Your task to perform on an android device: turn on wifi Image 0: 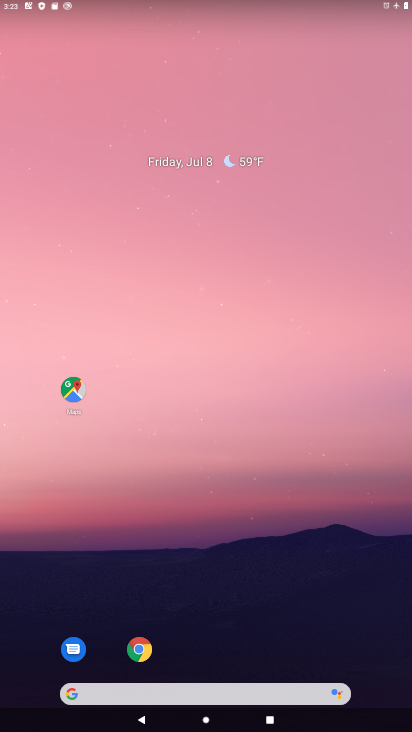
Step 0: drag from (309, 572) to (251, 89)
Your task to perform on an android device: turn on wifi Image 1: 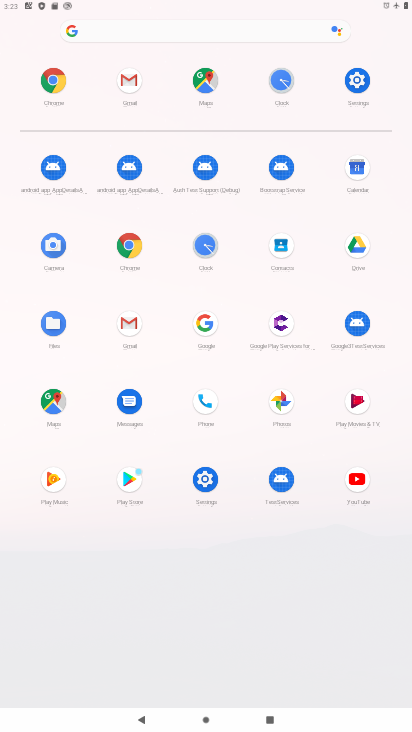
Step 1: click (356, 77)
Your task to perform on an android device: turn on wifi Image 2: 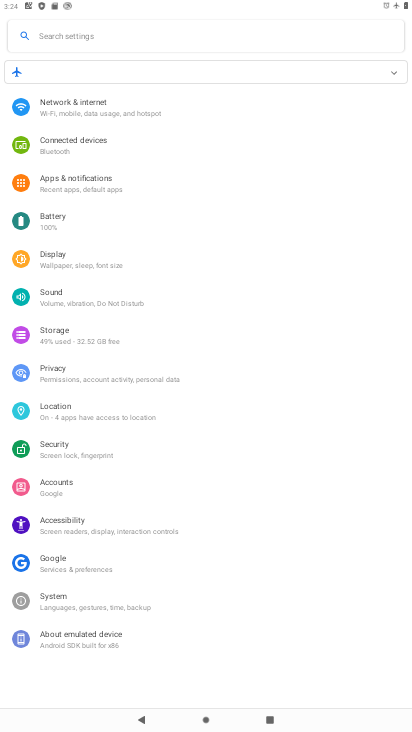
Step 2: click (147, 103)
Your task to perform on an android device: turn on wifi Image 3: 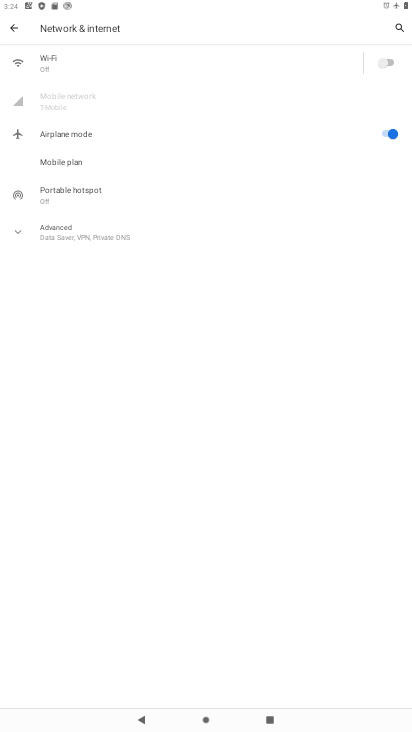
Step 3: click (380, 61)
Your task to perform on an android device: turn on wifi Image 4: 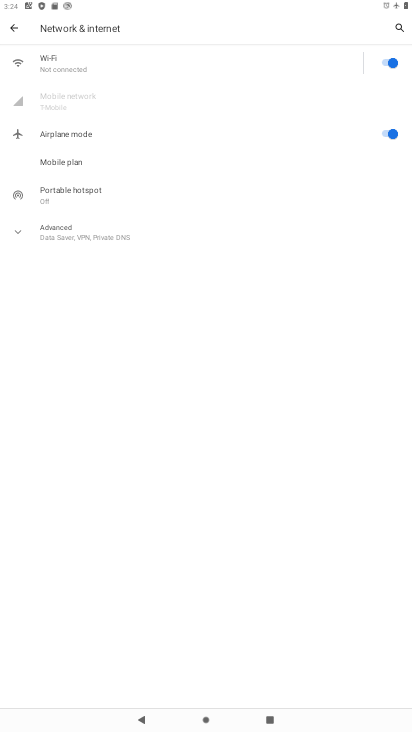
Step 4: task complete